Your task to perform on an android device: Go to settings Image 0: 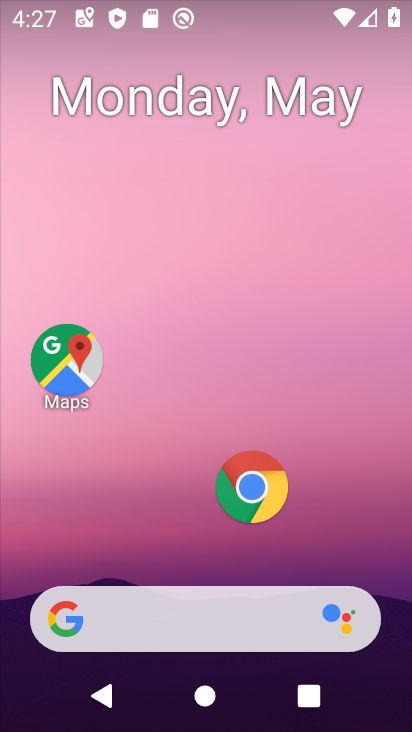
Step 0: drag from (150, 590) to (295, 51)
Your task to perform on an android device: Go to settings Image 1: 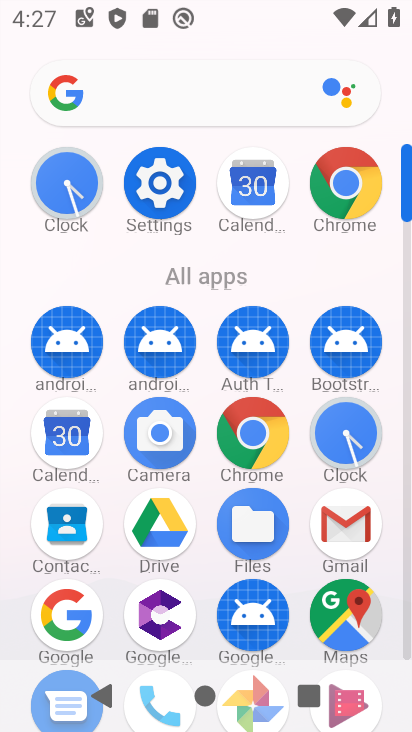
Step 1: click (156, 178)
Your task to perform on an android device: Go to settings Image 2: 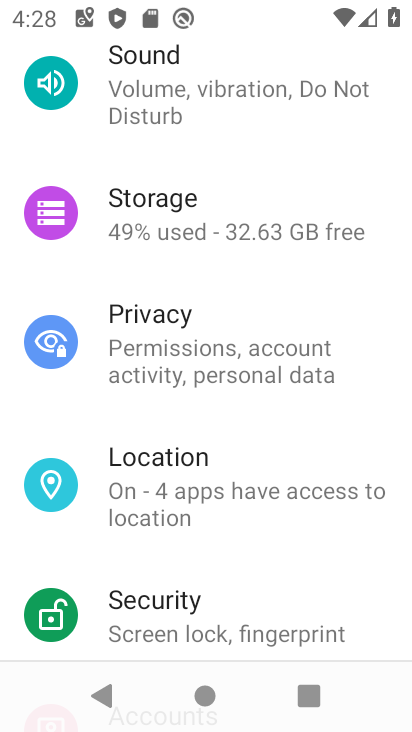
Step 2: task complete